Your task to perform on an android device: Open settings Image 0: 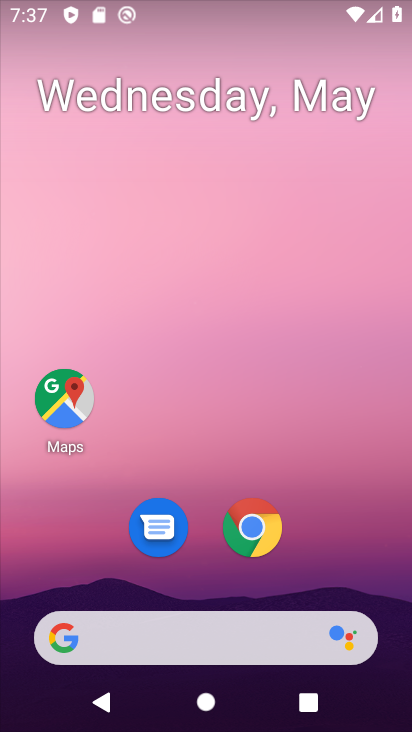
Step 0: drag from (373, 560) to (315, 97)
Your task to perform on an android device: Open settings Image 1: 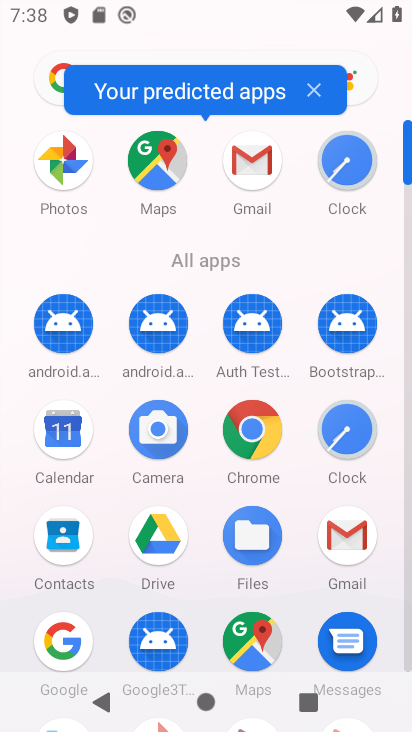
Step 1: click (409, 618)
Your task to perform on an android device: Open settings Image 2: 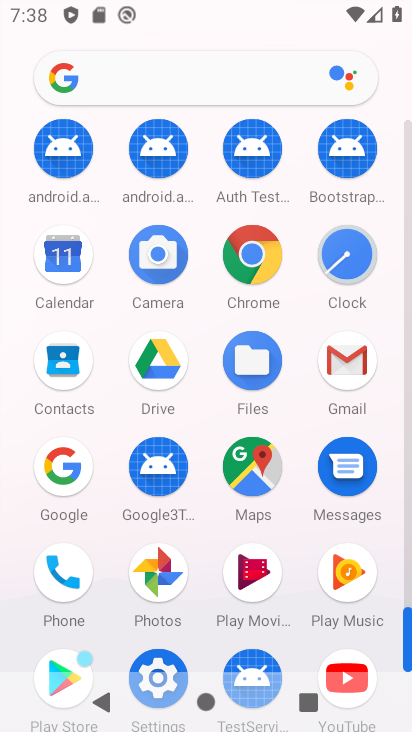
Step 2: click (171, 657)
Your task to perform on an android device: Open settings Image 3: 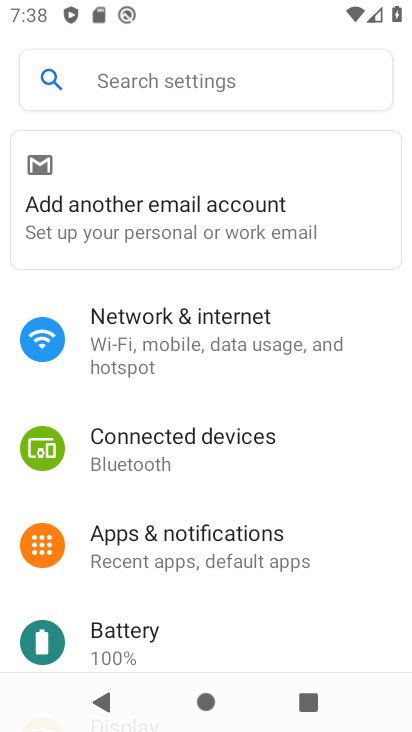
Step 3: task complete